Your task to perform on an android device: Do I have any events this weekend? Image 0: 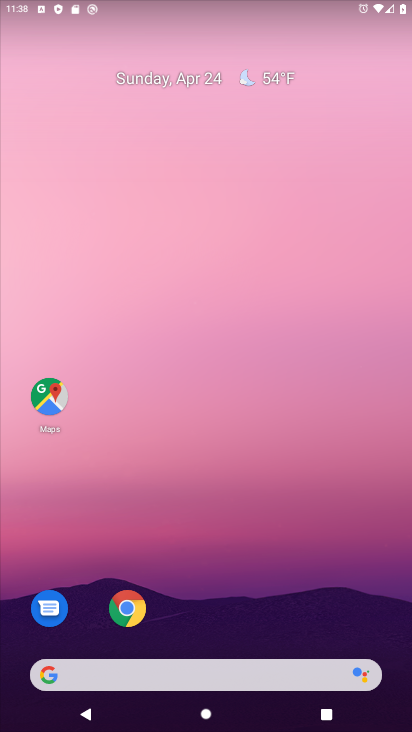
Step 0: drag from (393, 643) to (281, 6)
Your task to perform on an android device: Do I have any events this weekend? Image 1: 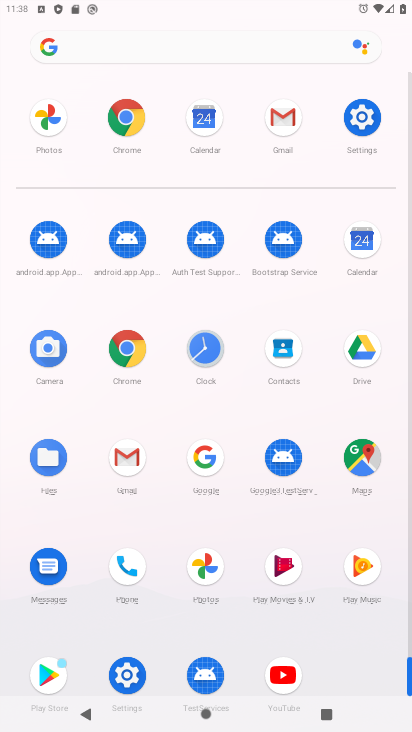
Step 1: click (357, 244)
Your task to perform on an android device: Do I have any events this weekend? Image 2: 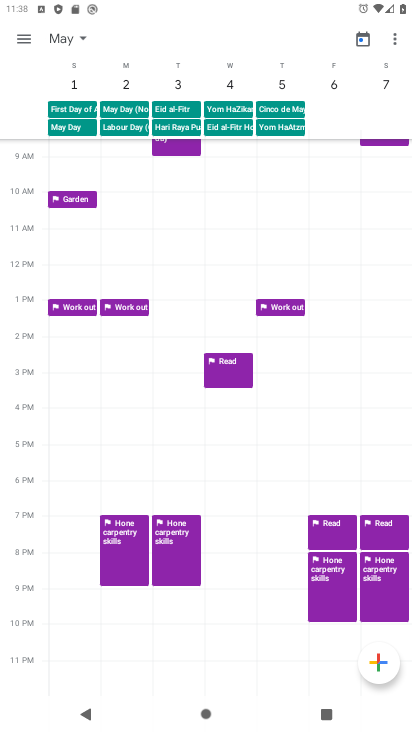
Step 2: click (23, 39)
Your task to perform on an android device: Do I have any events this weekend? Image 3: 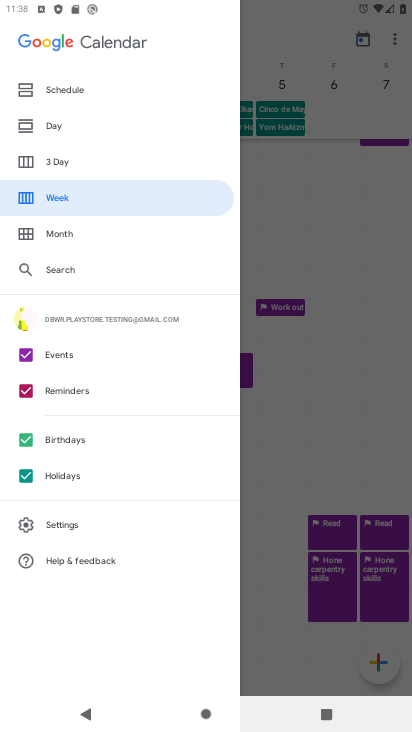
Step 3: click (71, 199)
Your task to perform on an android device: Do I have any events this weekend? Image 4: 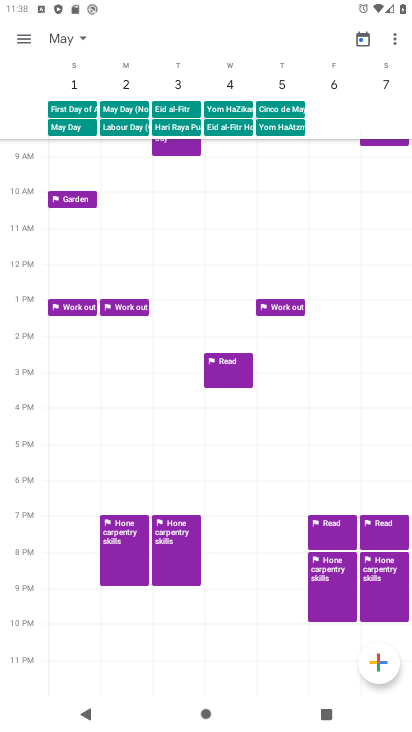
Step 4: click (79, 36)
Your task to perform on an android device: Do I have any events this weekend? Image 5: 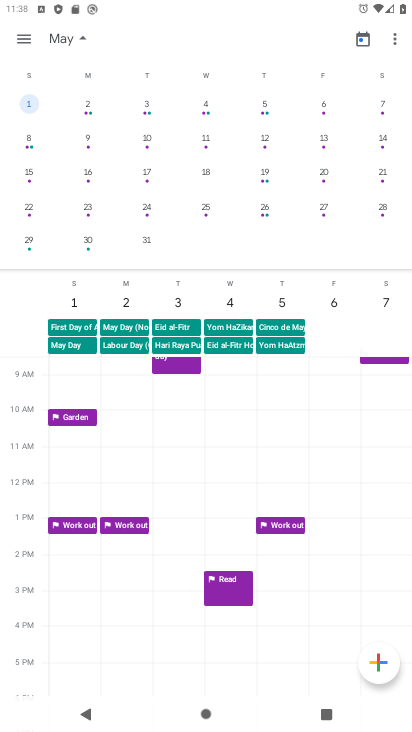
Step 5: task complete